Your task to perform on an android device: stop showing notifications on the lock screen Image 0: 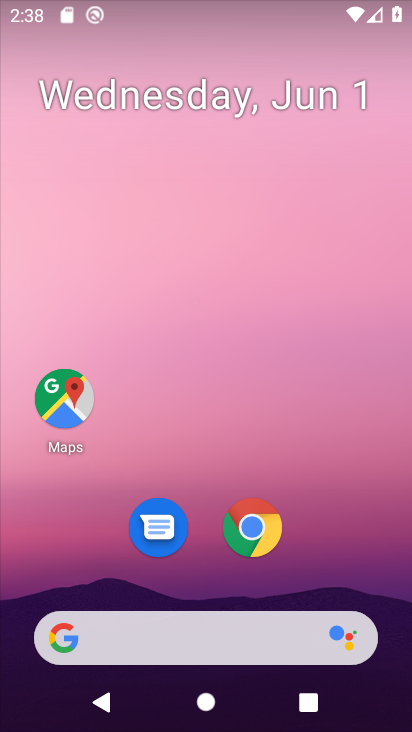
Step 0: drag from (200, 595) to (297, 52)
Your task to perform on an android device: stop showing notifications on the lock screen Image 1: 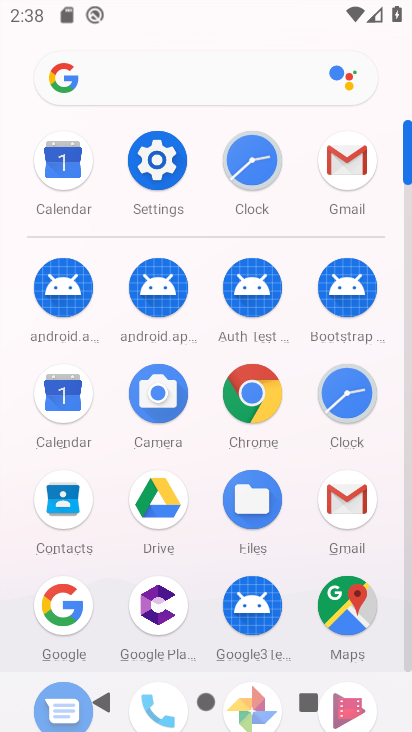
Step 1: click (169, 175)
Your task to perform on an android device: stop showing notifications on the lock screen Image 2: 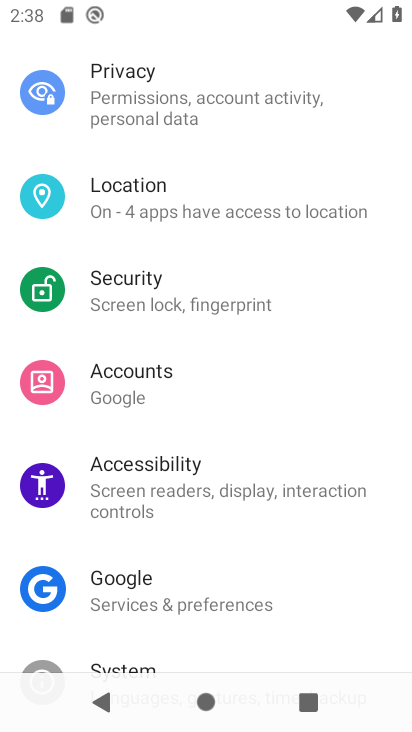
Step 2: drag from (199, 189) to (226, 672)
Your task to perform on an android device: stop showing notifications on the lock screen Image 3: 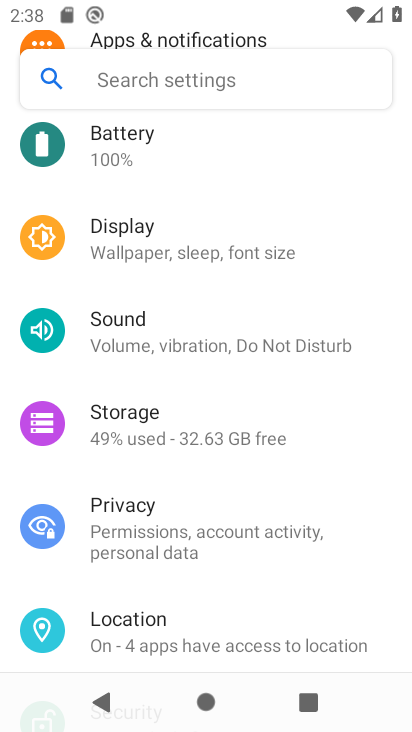
Step 3: drag from (194, 323) to (197, 693)
Your task to perform on an android device: stop showing notifications on the lock screen Image 4: 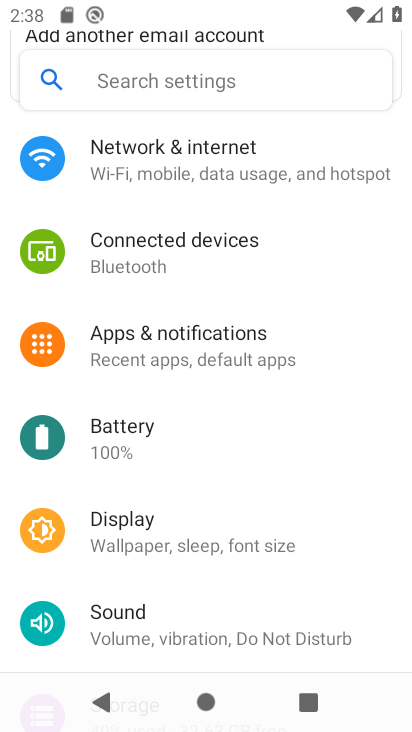
Step 4: click (219, 349)
Your task to perform on an android device: stop showing notifications on the lock screen Image 5: 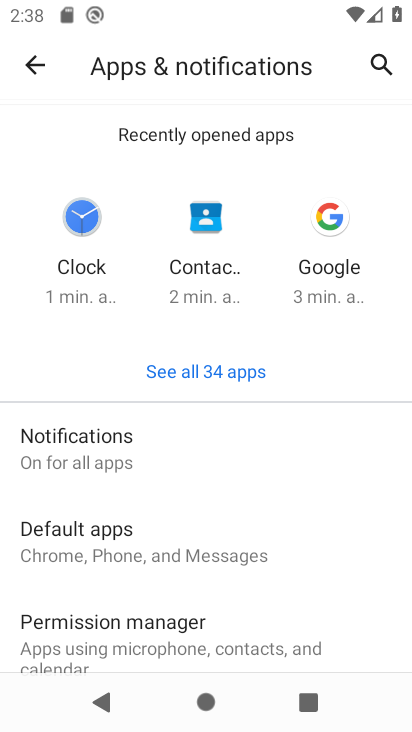
Step 5: click (151, 445)
Your task to perform on an android device: stop showing notifications on the lock screen Image 6: 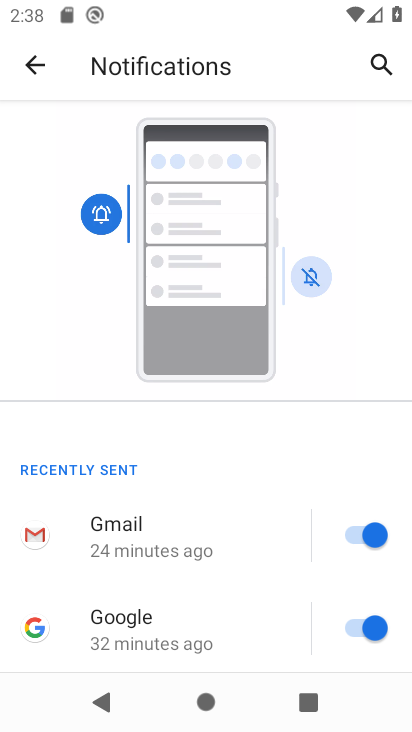
Step 6: drag from (168, 506) to (268, 15)
Your task to perform on an android device: stop showing notifications on the lock screen Image 7: 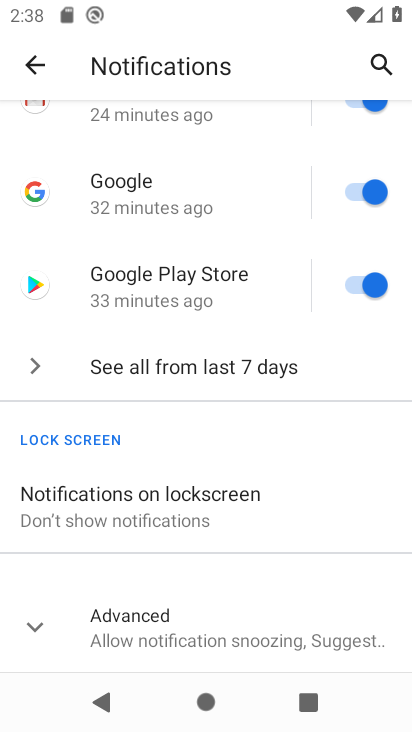
Step 7: click (186, 509)
Your task to perform on an android device: stop showing notifications on the lock screen Image 8: 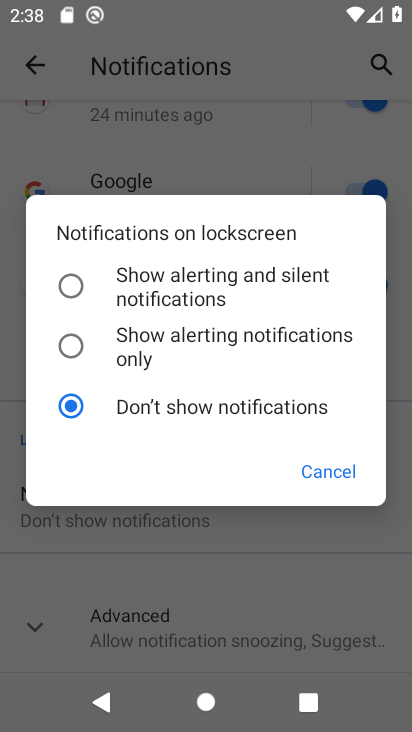
Step 8: task complete